Your task to perform on an android device: Go to Maps Image 0: 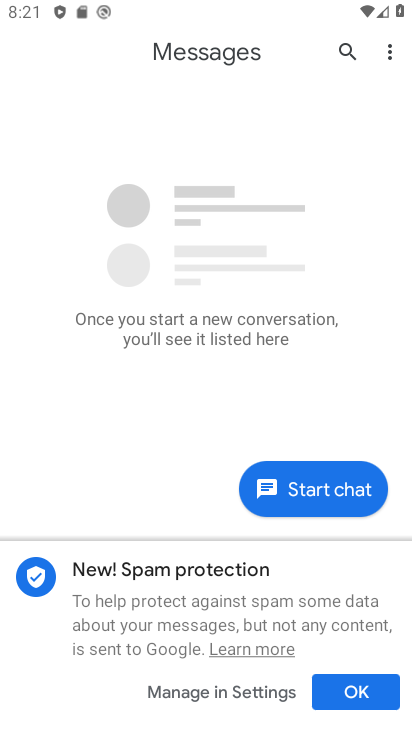
Step 0: press home button
Your task to perform on an android device: Go to Maps Image 1: 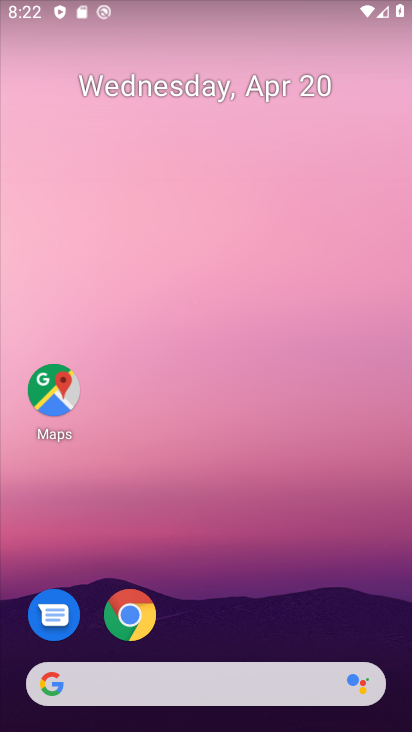
Step 1: click (47, 388)
Your task to perform on an android device: Go to Maps Image 2: 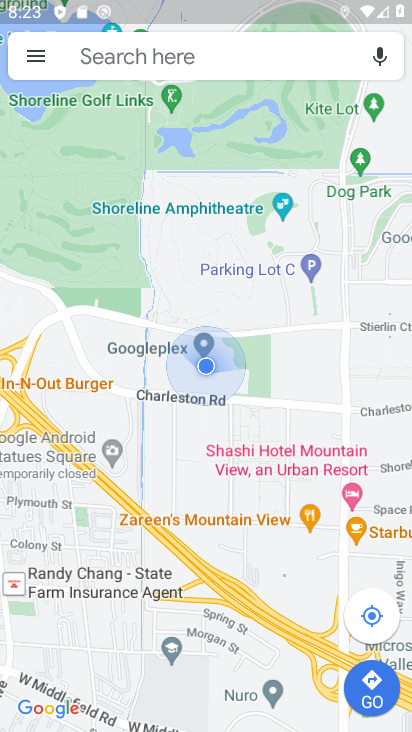
Step 2: task complete